Your task to perform on an android device: turn on sleep mode Image 0: 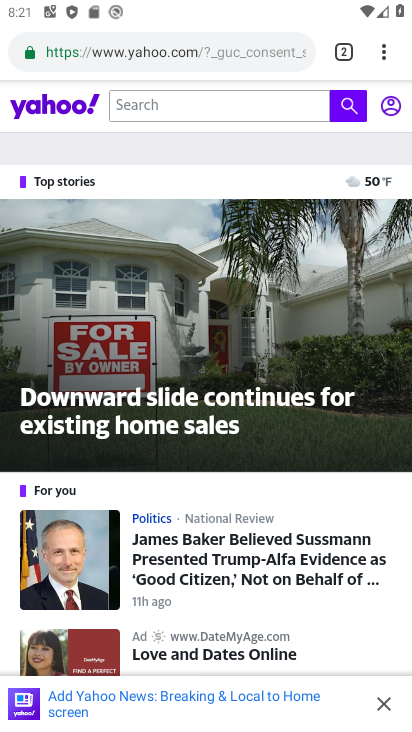
Step 0: press home button
Your task to perform on an android device: turn on sleep mode Image 1: 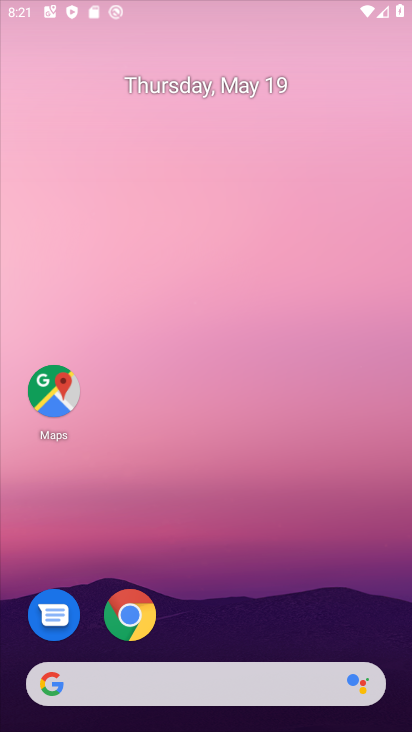
Step 1: drag from (230, 580) to (251, 73)
Your task to perform on an android device: turn on sleep mode Image 2: 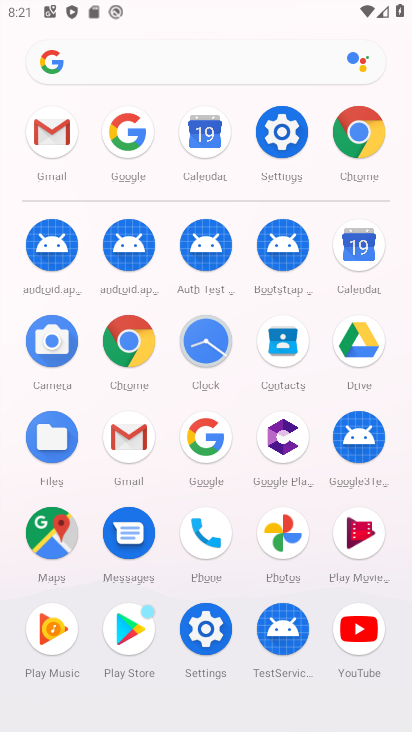
Step 2: click (280, 128)
Your task to perform on an android device: turn on sleep mode Image 3: 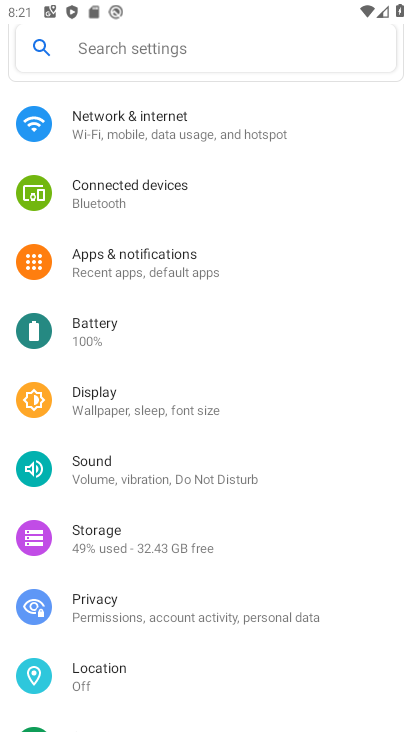
Step 3: click (158, 399)
Your task to perform on an android device: turn on sleep mode Image 4: 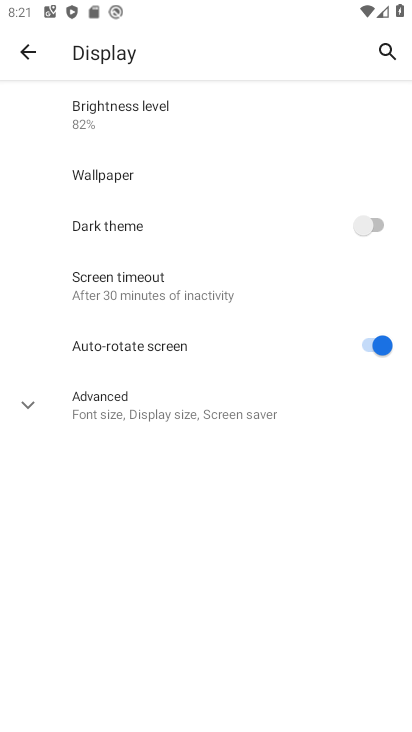
Step 4: click (148, 293)
Your task to perform on an android device: turn on sleep mode Image 5: 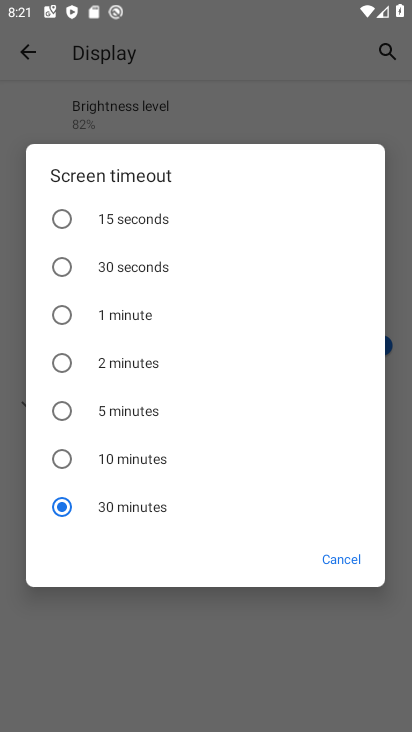
Step 5: task complete